Your task to perform on an android device: add a contact Image 0: 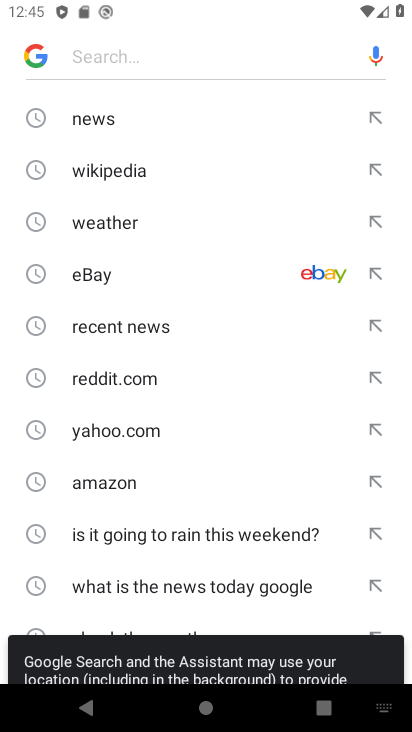
Step 0: press back button
Your task to perform on an android device: add a contact Image 1: 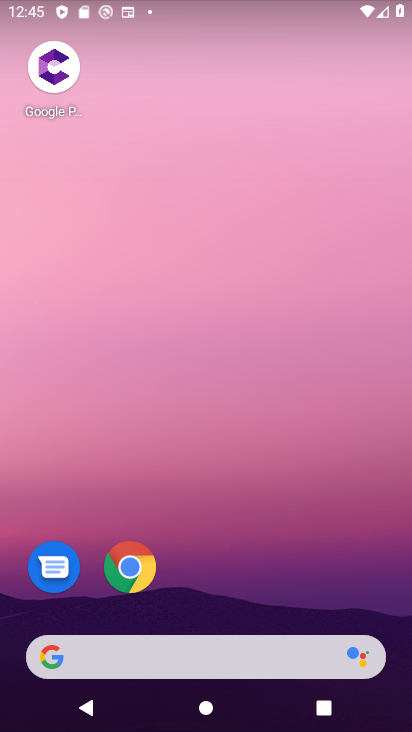
Step 1: drag from (256, 582) to (233, 94)
Your task to perform on an android device: add a contact Image 2: 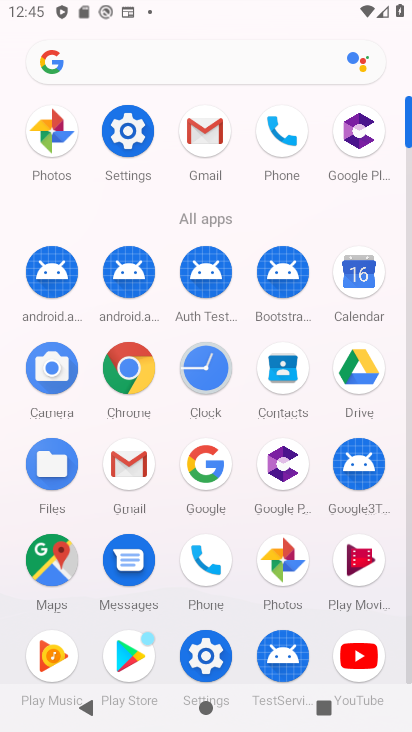
Step 2: click (274, 374)
Your task to perform on an android device: add a contact Image 3: 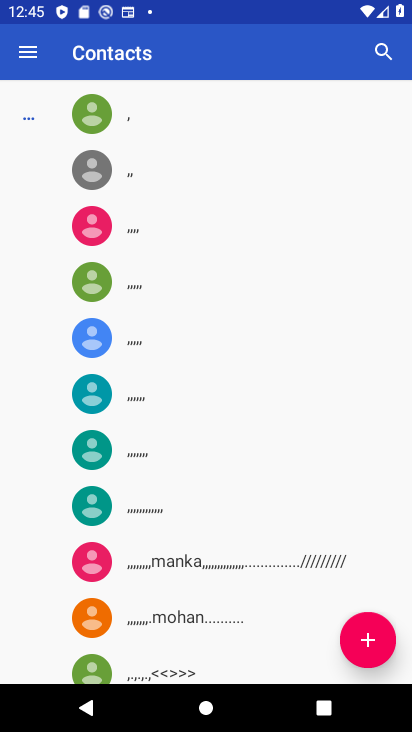
Step 3: click (369, 641)
Your task to perform on an android device: add a contact Image 4: 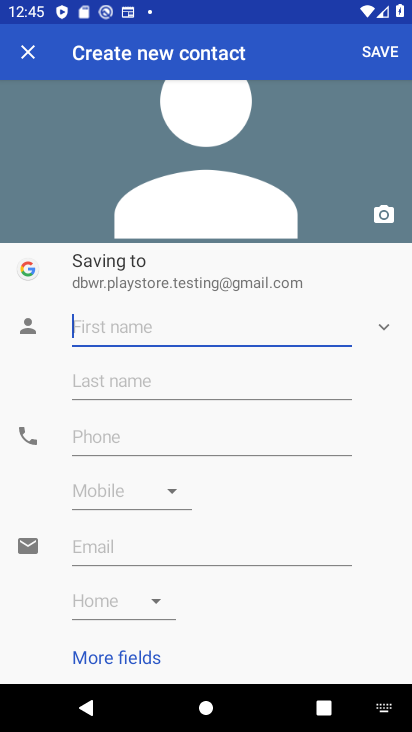
Step 4: click (170, 336)
Your task to perform on an android device: add a contact Image 5: 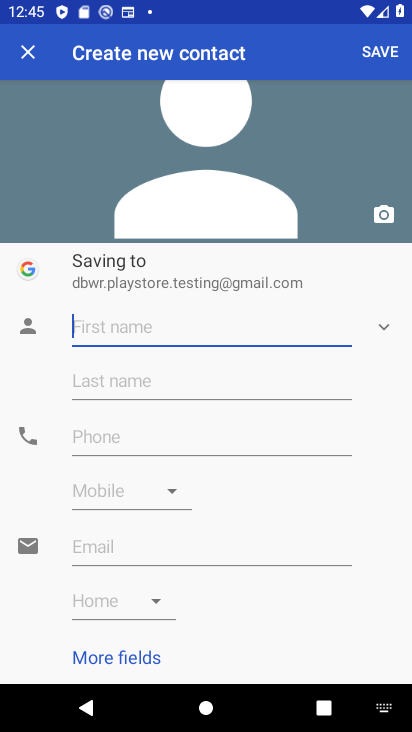
Step 5: type "dfdfds"
Your task to perform on an android device: add a contact Image 6: 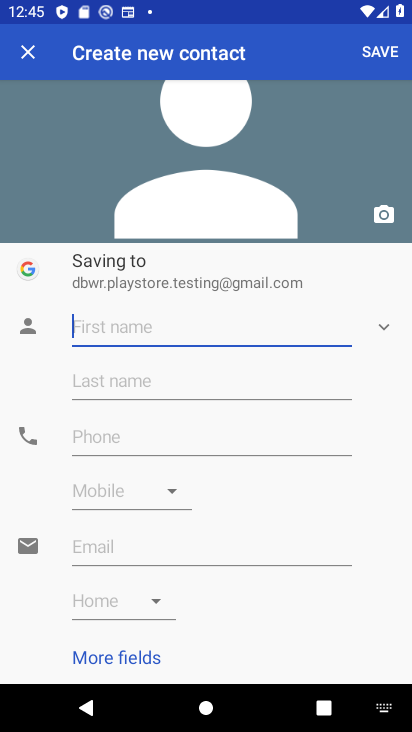
Step 6: click (135, 435)
Your task to perform on an android device: add a contact Image 7: 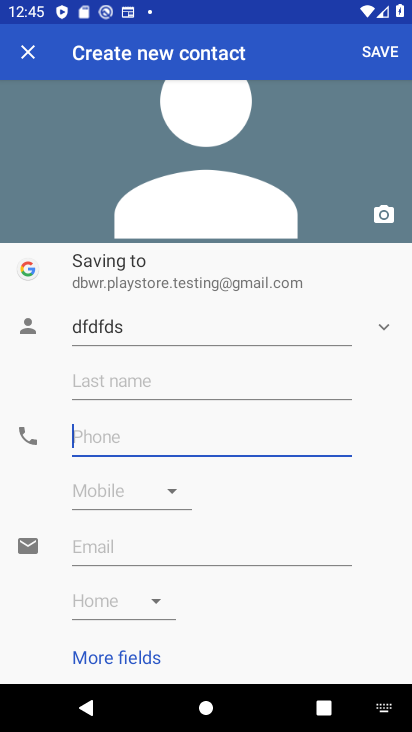
Step 7: type "4242423"
Your task to perform on an android device: add a contact Image 8: 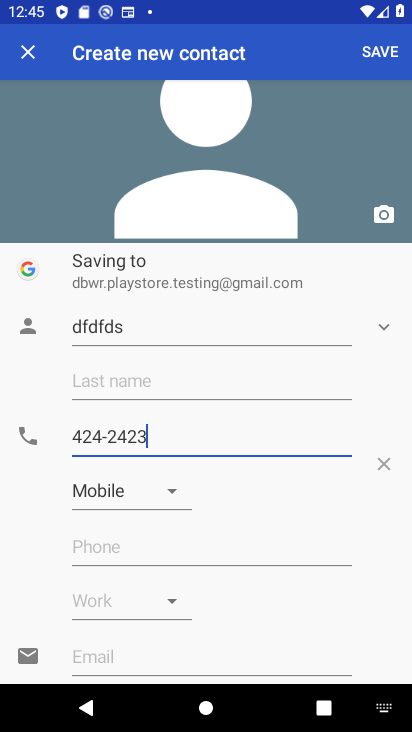
Step 8: click (387, 54)
Your task to perform on an android device: add a contact Image 9: 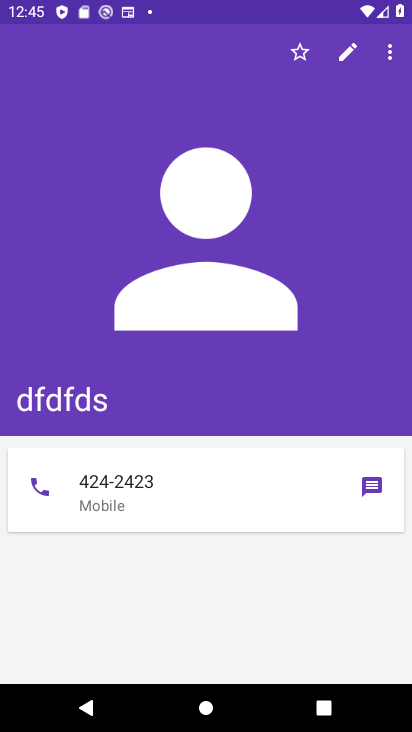
Step 9: task complete